Your task to perform on an android device: What's the weather going to be tomorrow? Image 0: 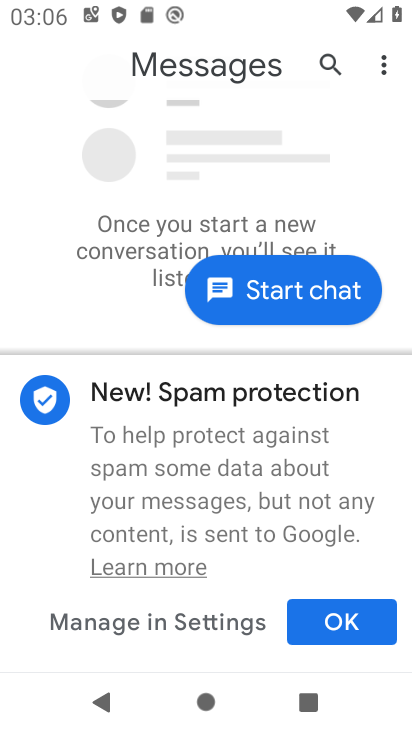
Step 0: press back button
Your task to perform on an android device: What's the weather going to be tomorrow? Image 1: 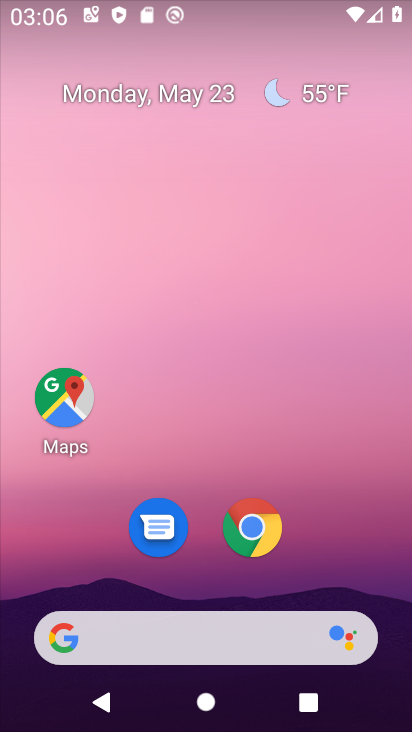
Step 1: drag from (326, 496) to (256, 0)
Your task to perform on an android device: What's the weather going to be tomorrow? Image 2: 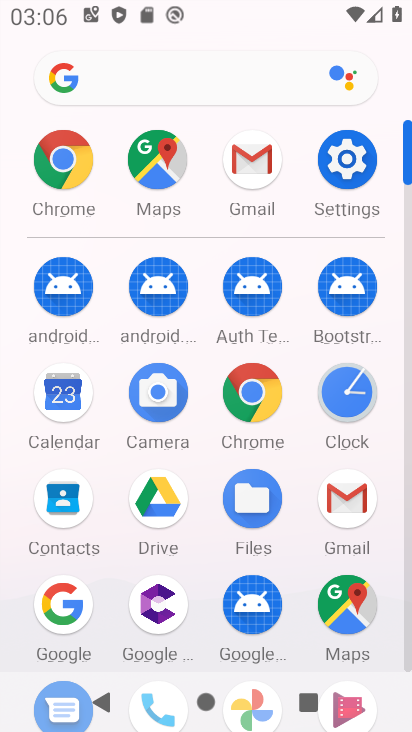
Step 2: drag from (10, 585) to (6, 235)
Your task to perform on an android device: What's the weather going to be tomorrow? Image 3: 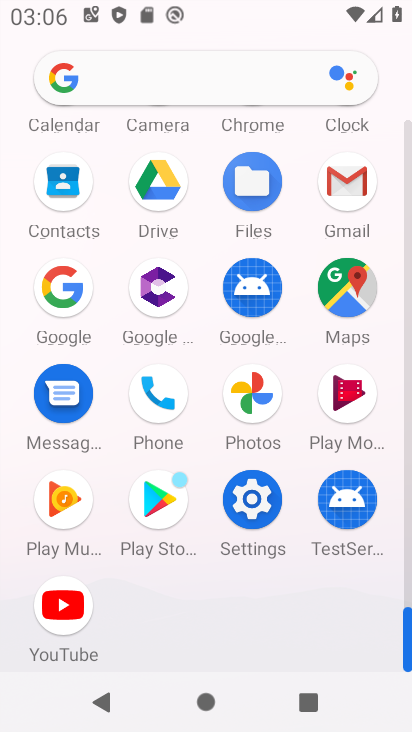
Step 3: drag from (11, 152) to (18, 436)
Your task to perform on an android device: What's the weather going to be tomorrow? Image 4: 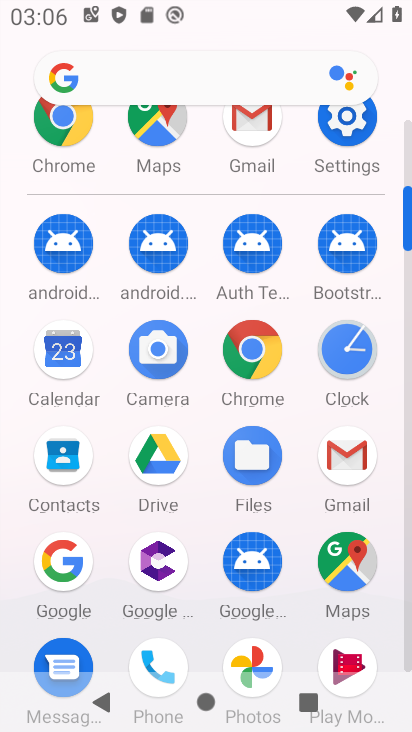
Step 4: click (254, 344)
Your task to perform on an android device: What's the weather going to be tomorrow? Image 5: 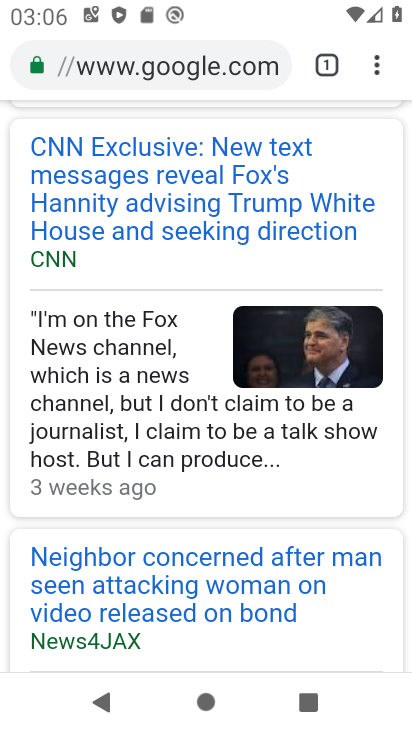
Step 5: click (169, 53)
Your task to perform on an android device: What's the weather going to be tomorrow? Image 6: 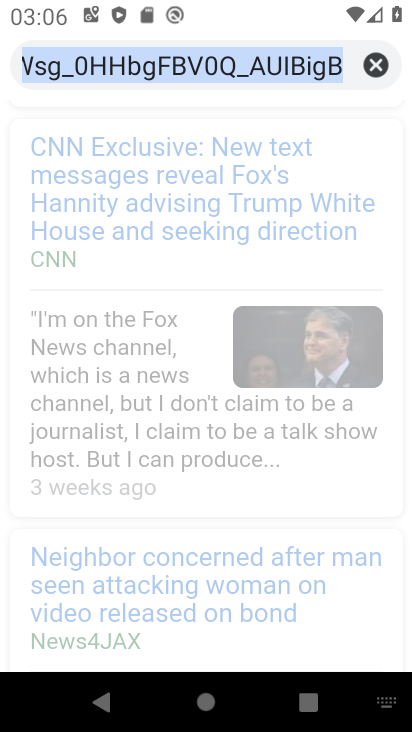
Step 6: click (369, 63)
Your task to perform on an android device: What's the weather going to be tomorrow? Image 7: 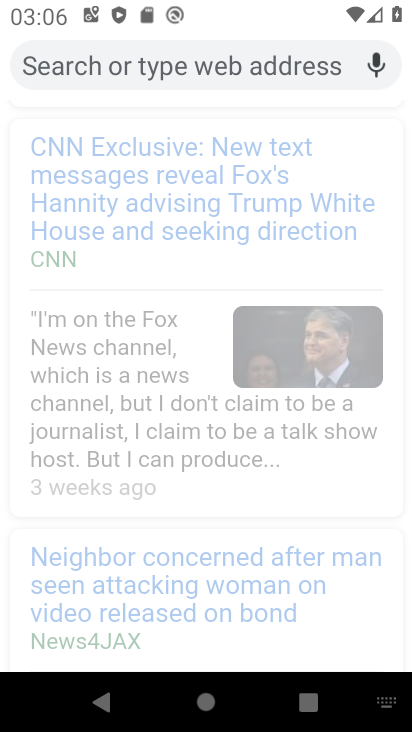
Step 7: type "What's the weather going to be tomorrow?"
Your task to perform on an android device: What's the weather going to be tomorrow? Image 8: 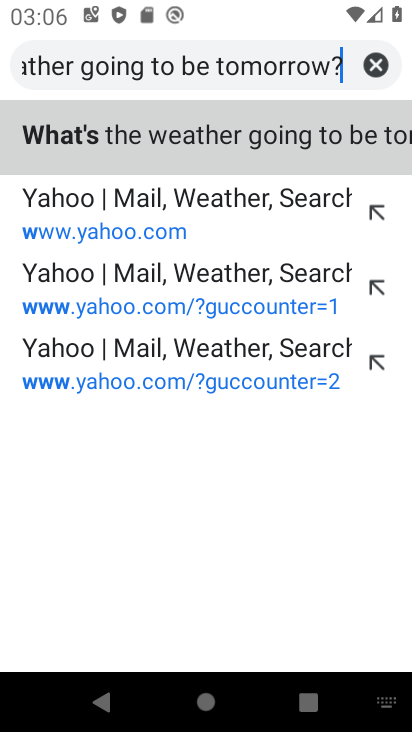
Step 8: type ""
Your task to perform on an android device: What's the weather going to be tomorrow? Image 9: 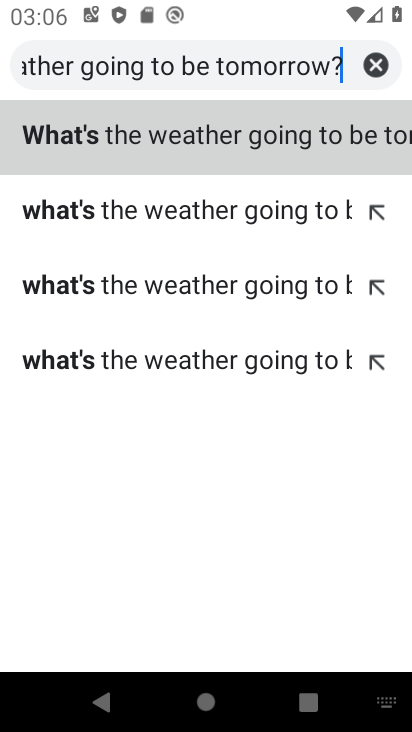
Step 9: click (196, 129)
Your task to perform on an android device: What's the weather going to be tomorrow? Image 10: 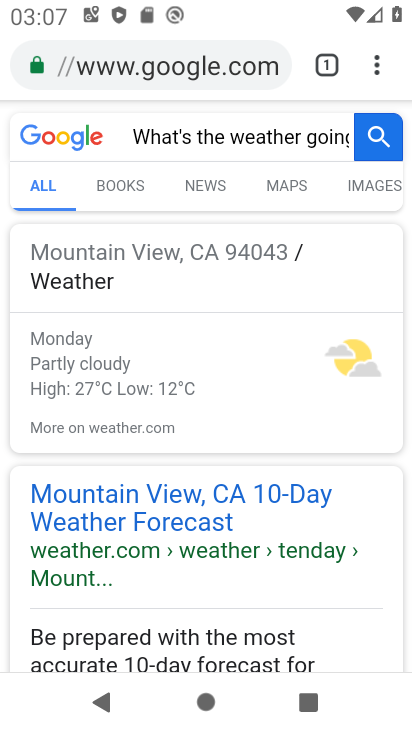
Step 10: task complete